Your task to perform on an android device: check the backup settings in the google photos Image 0: 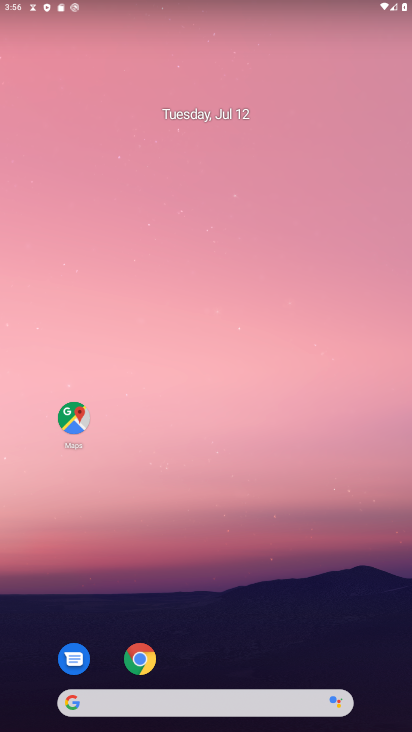
Step 0: press home button
Your task to perform on an android device: check the backup settings in the google photos Image 1: 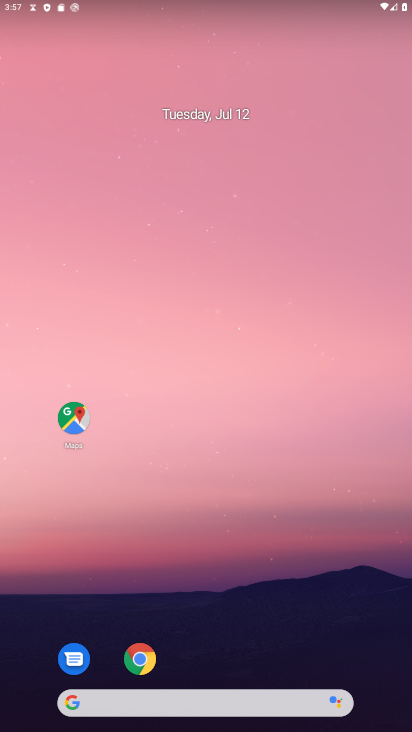
Step 1: drag from (280, 501) to (221, 59)
Your task to perform on an android device: check the backup settings in the google photos Image 2: 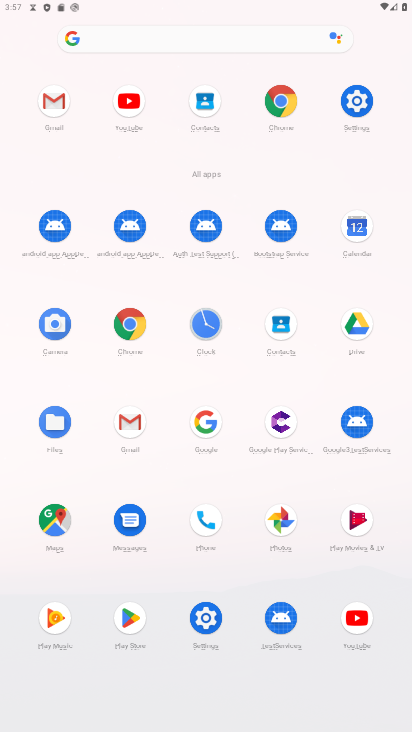
Step 2: click (279, 523)
Your task to perform on an android device: check the backup settings in the google photos Image 3: 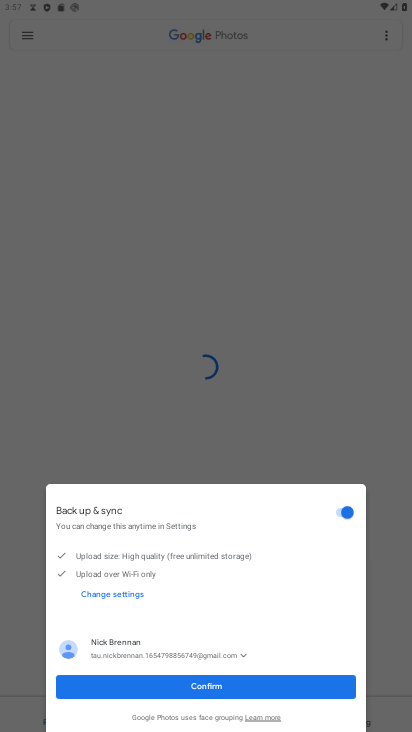
Step 3: click (200, 687)
Your task to perform on an android device: check the backup settings in the google photos Image 4: 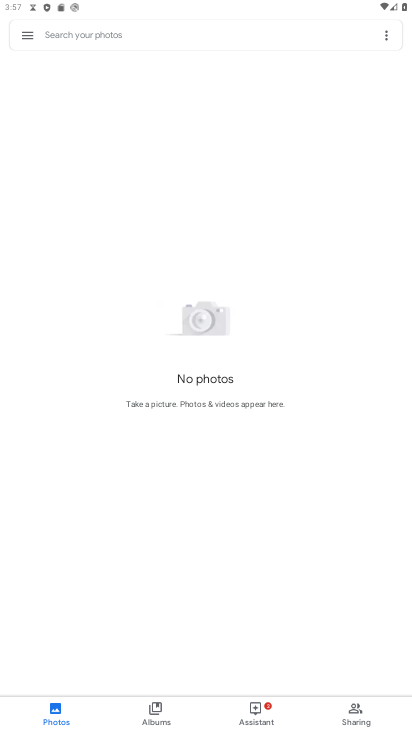
Step 4: click (29, 35)
Your task to perform on an android device: check the backup settings in the google photos Image 5: 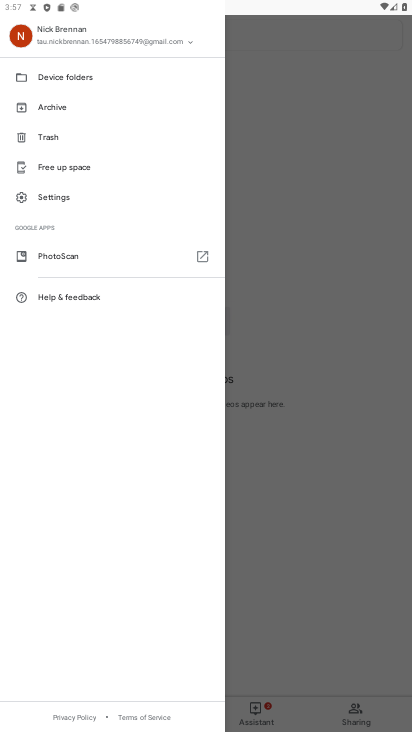
Step 5: click (35, 191)
Your task to perform on an android device: check the backup settings in the google photos Image 6: 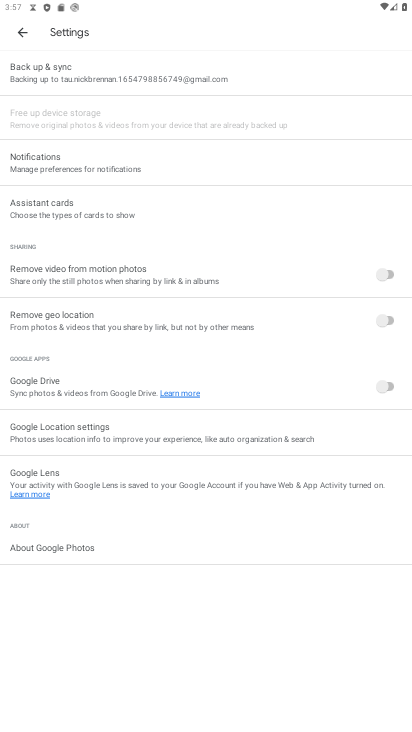
Step 6: click (103, 80)
Your task to perform on an android device: check the backup settings in the google photos Image 7: 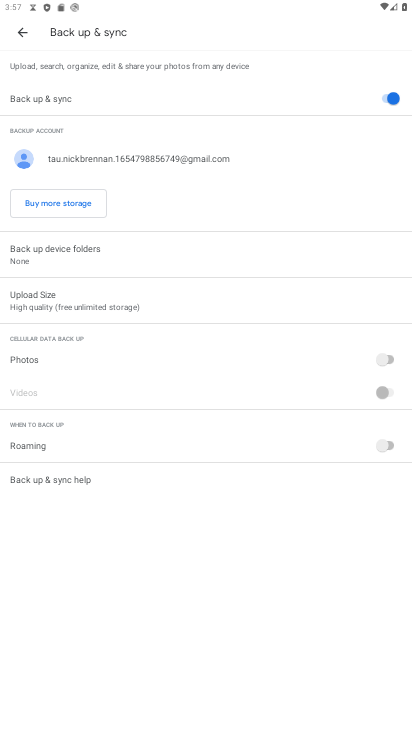
Step 7: task complete